Your task to perform on an android device: Go to privacy settings Image 0: 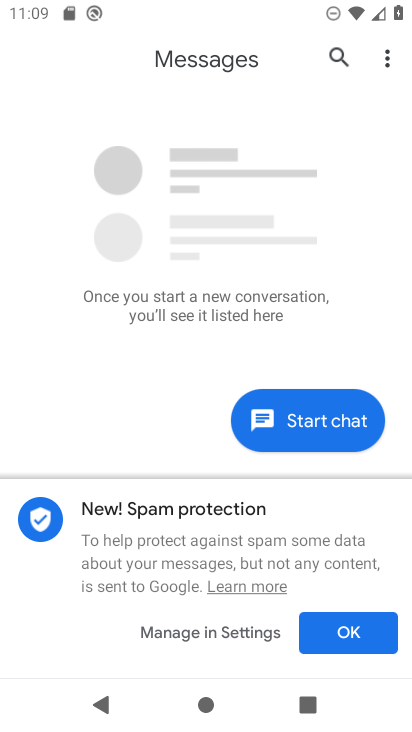
Step 0: drag from (250, 2) to (346, 6)
Your task to perform on an android device: Go to privacy settings Image 1: 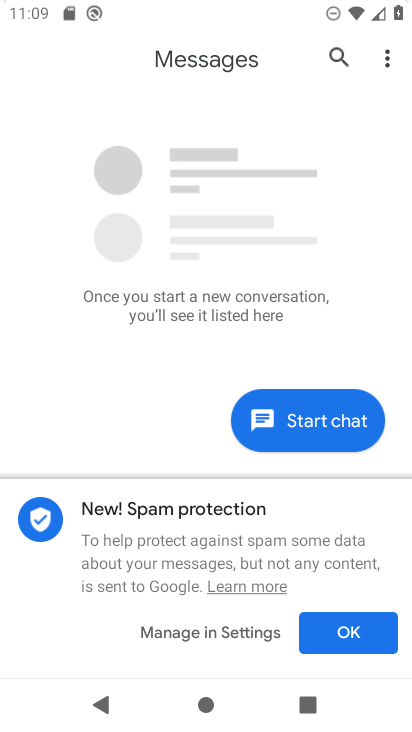
Step 1: press home button
Your task to perform on an android device: Go to privacy settings Image 2: 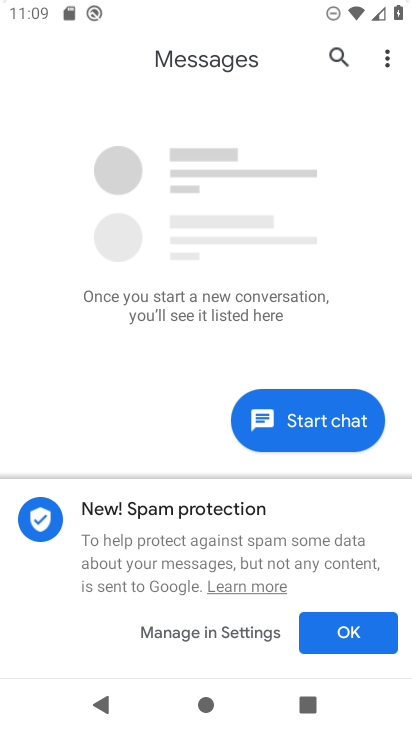
Step 2: drag from (346, 6) to (397, 361)
Your task to perform on an android device: Go to privacy settings Image 3: 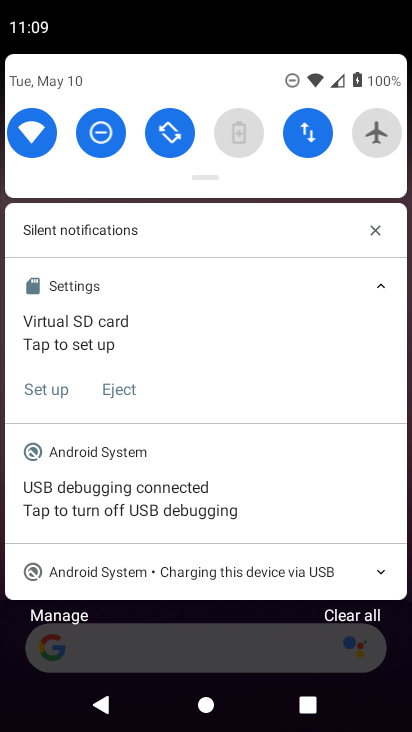
Step 3: drag from (261, 614) to (374, 80)
Your task to perform on an android device: Go to privacy settings Image 4: 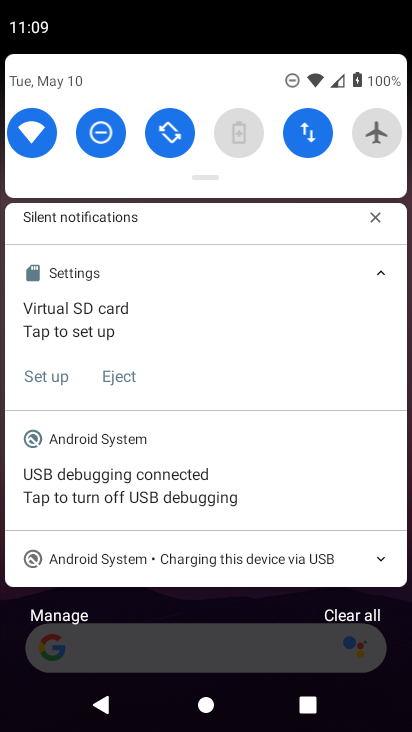
Step 4: drag from (274, 569) to (390, 1)
Your task to perform on an android device: Go to privacy settings Image 5: 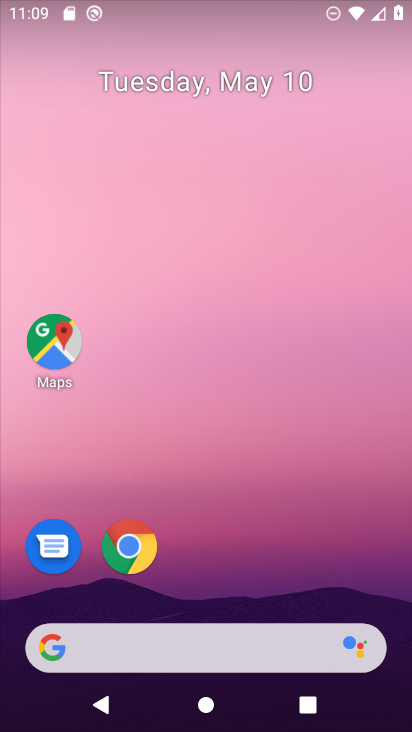
Step 5: drag from (251, 499) to (318, 60)
Your task to perform on an android device: Go to privacy settings Image 6: 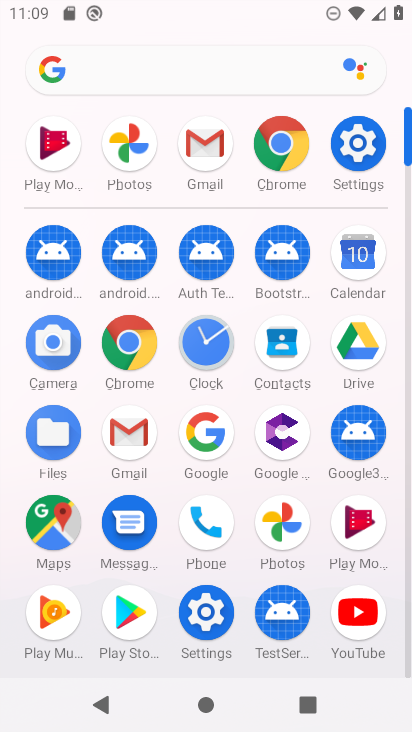
Step 6: click (335, 138)
Your task to perform on an android device: Go to privacy settings Image 7: 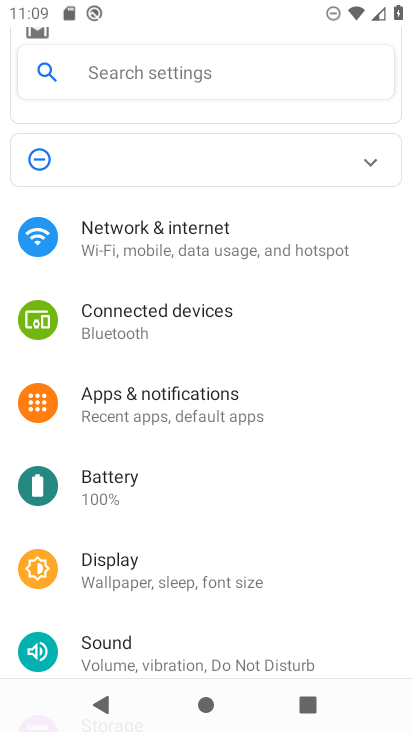
Step 7: drag from (197, 543) to (361, 28)
Your task to perform on an android device: Go to privacy settings Image 8: 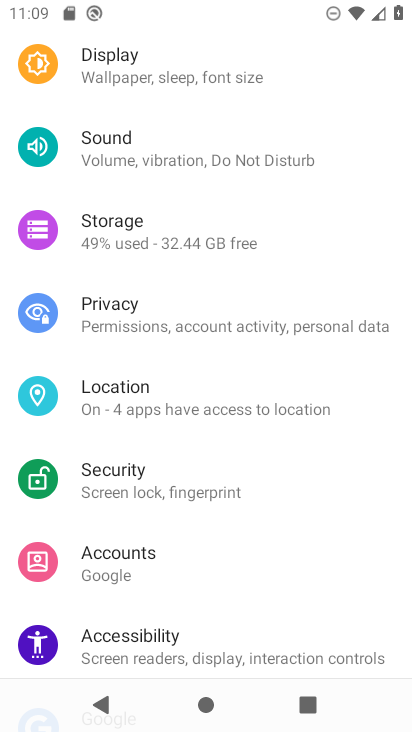
Step 8: click (198, 337)
Your task to perform on an android device: Go to privacy settings Image 9: 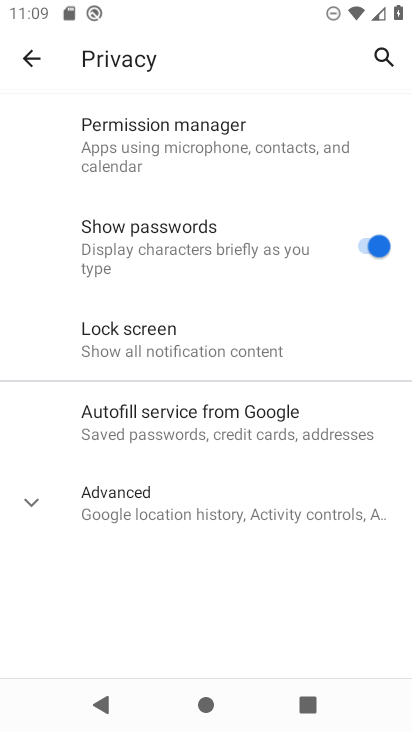
Step 9: task complete